Your task to perform on an android device: What's on my calendar tomorrow? Image 0: 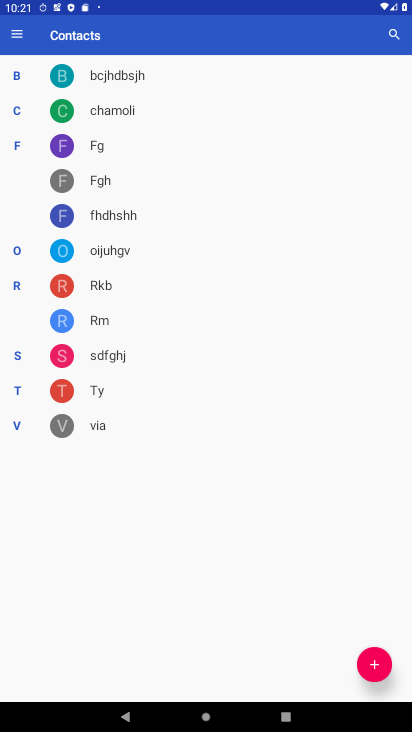
Step 0: press home button
Your task to perform on an android device: What's on my calendar tomorrow? Image 1: 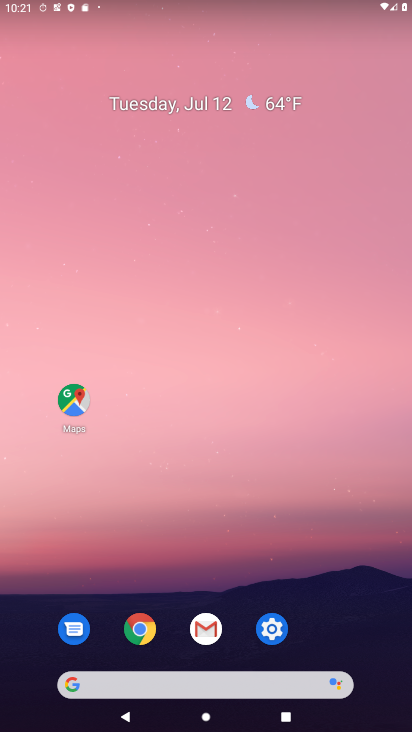
Step 1: drag from (217, 698) to (299, 98)
Your task to perform on an android device: What's on my calendar tomorrow? Image 2: 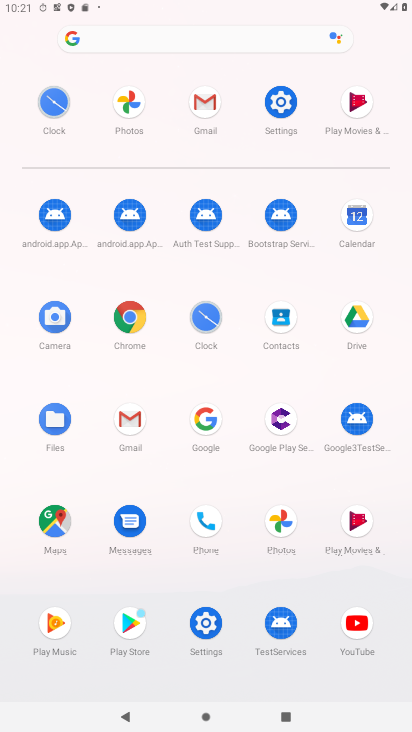
Step 2: click (357, 217)
Your task to perform on an android device: What's on my calendar tomorrow? Image 3: 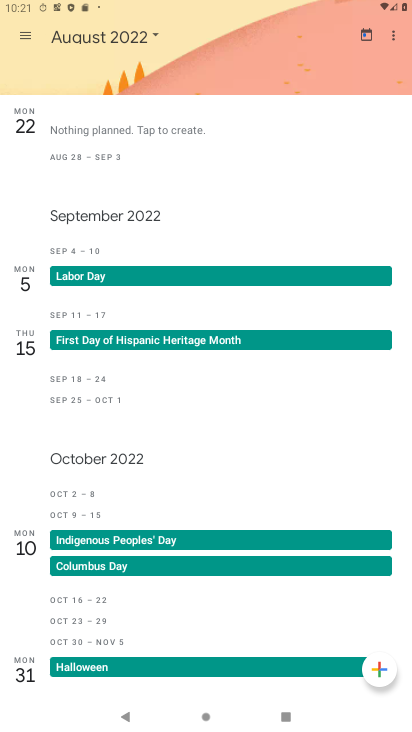
Step 3: click (17, 28)
Your task to perform on an android device: What's on my calendar tomorrow? Image 4: 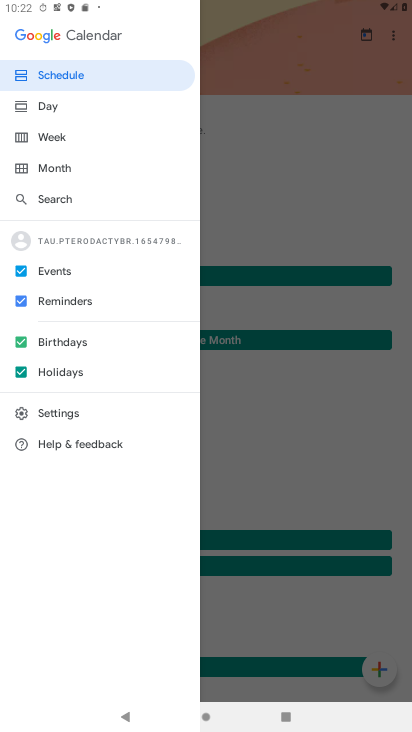
Step 4: click (63, 166)
Your task to perform on an android device: What's on my calendar tomorrow? Image 5: 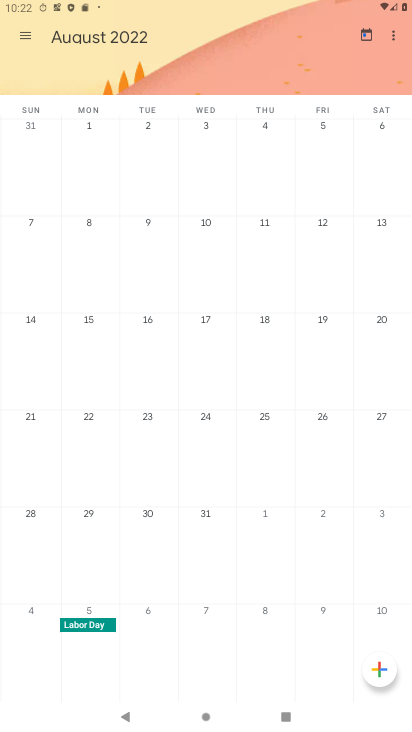
Step 5: drag from (41, 301) to (358, 211)
Your task to perform on an android device: What's on my calendar tomorrow? Image 6: 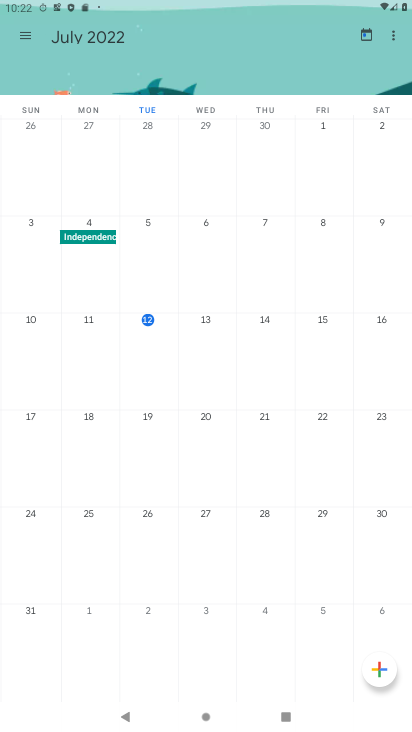
Step 6: click (199, 330)
Your task to perform on an android device: What's on my calendar tomorrow? Image 7: 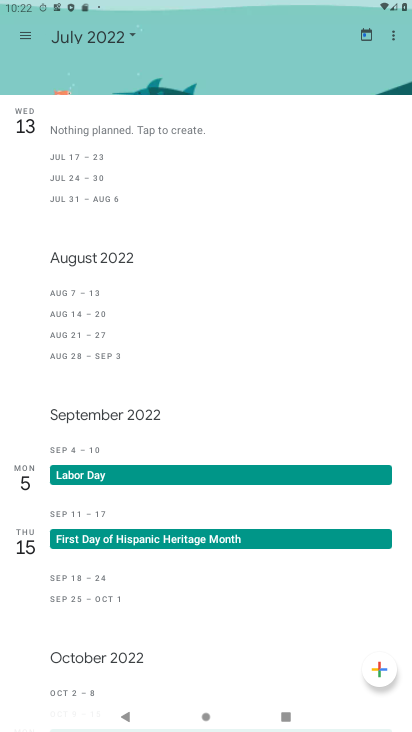
Step 7: task complete